Your task to perform on an android device: clear all cookies in the chrome app Image 0: 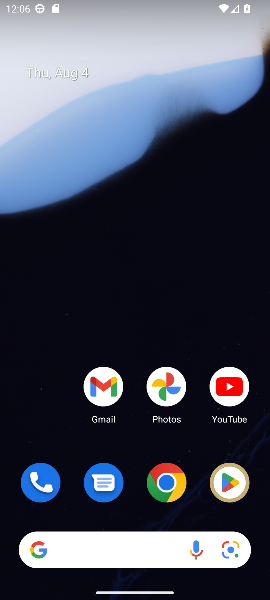
Step 0: click (169, 470)
Your task to perform on an android device: clear all cookies in the chrome app Image 1: 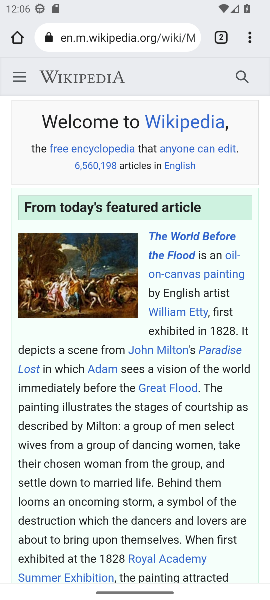
Step 1: click (249, 46)
Your task to perform on an android device: clear all cookies in the chrome app Image 2: 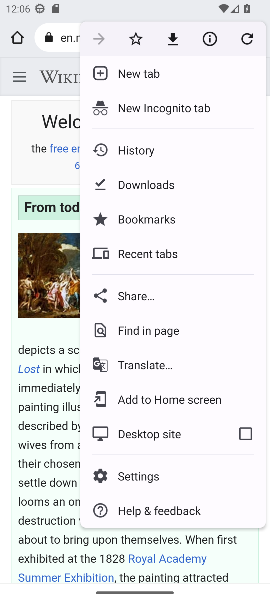
Step 2: click (127, 153)
Your task to perform on an android device: clear all cookies in the chrome app Image 3: 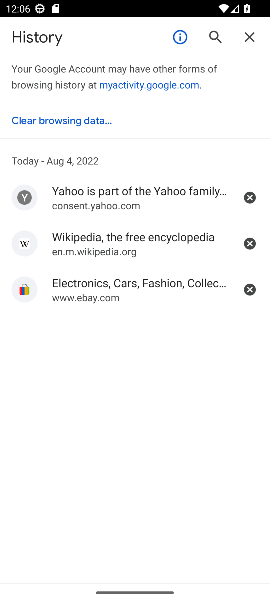
Step 3: click (71, 124)
Your task to perform on an android device: clear all cookies in the chrome app Image 4: 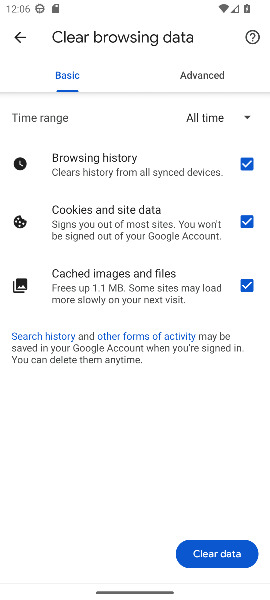
Step 4: click (221, 556)
Your task to perform on an android device: clear all cookies in the chrome app Image 5: 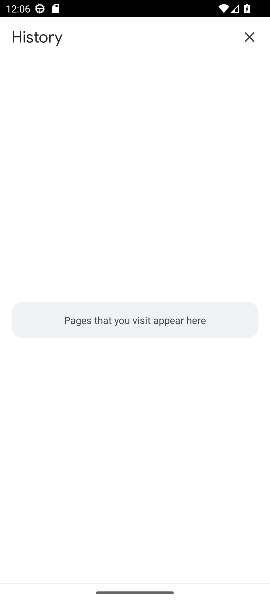
Step 5: task complete